Your task to perform on an android device: Open Google Maps and go to "Timeline" Image 0: 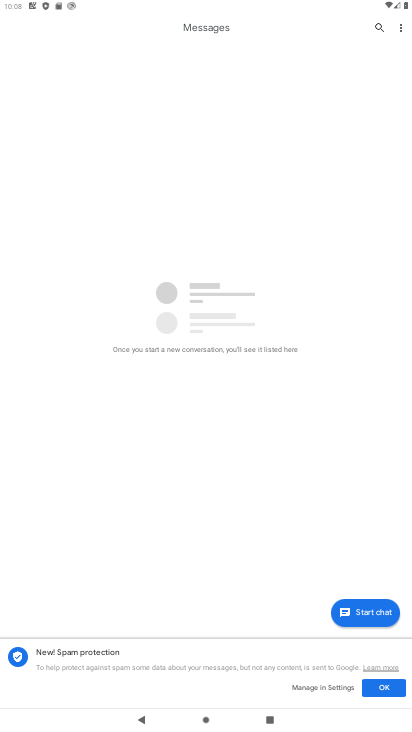
Step 0: task impossible